Your task to perform on an android device: Go to notification settings Image 0: 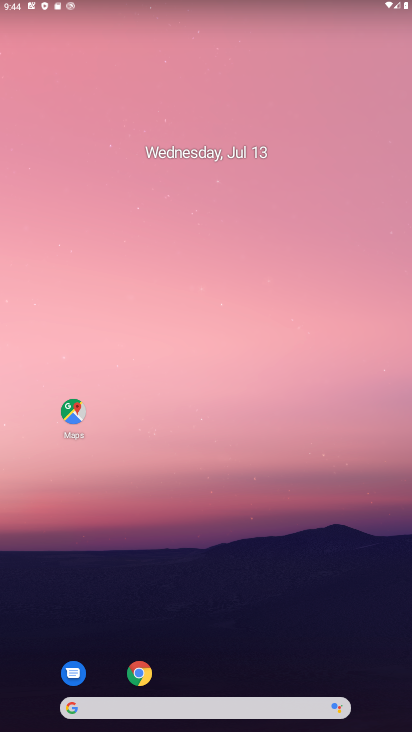
Step 0: drag from (206, 679) to (192, 193)
Your task to perform on an android device: Go to notification settings Image 1: 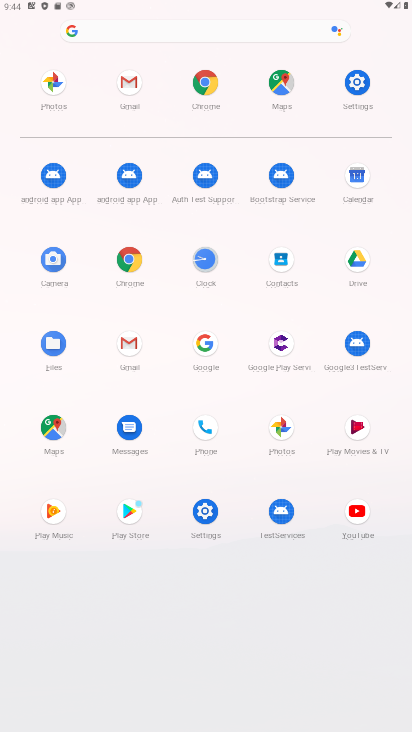
Step 1: click (364, 83)
Your task to perform on an android device: Go to notification settings Image 2: 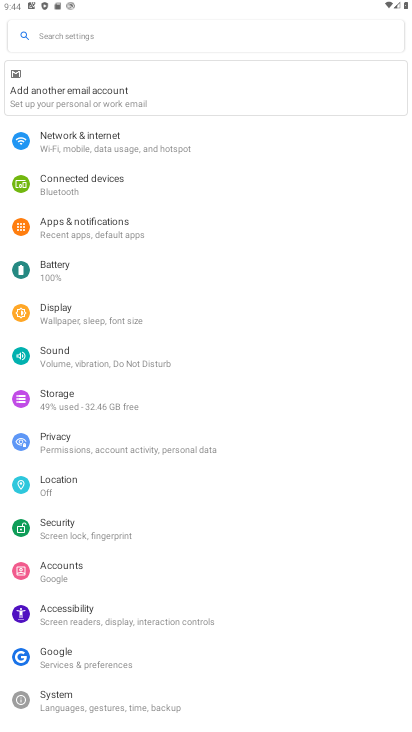
Step 2: click (105, 227)
Your task to perform on an android device: Go to notification settings Image 3: 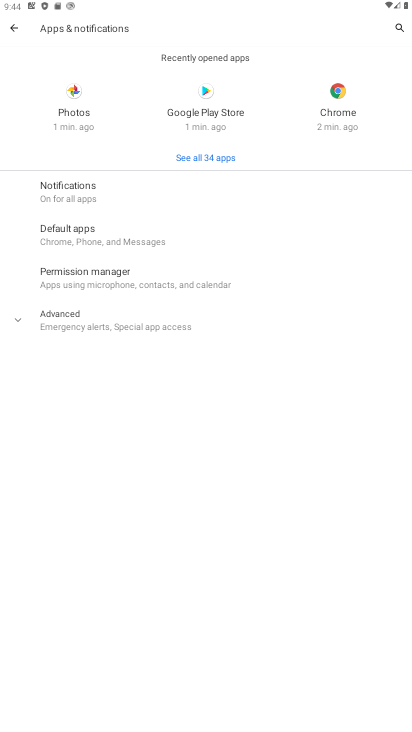
Step 3: task complete